Your task to perform on an android device: turn off javascript in the chrome app Image 0: 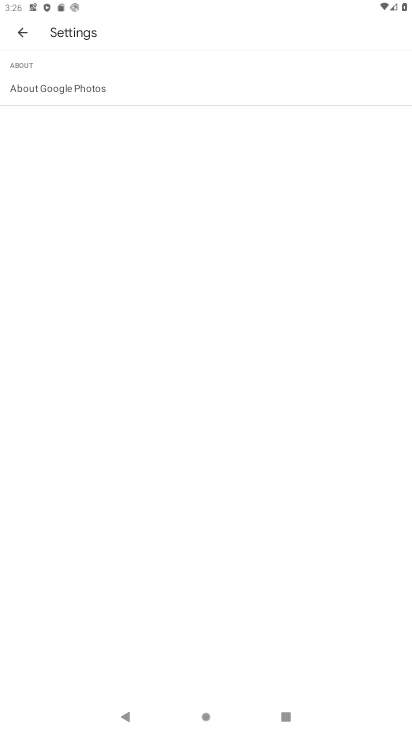
Step 0: press home button
Your task to perform on an android device: turn off javascript in the chrome app Image 1: 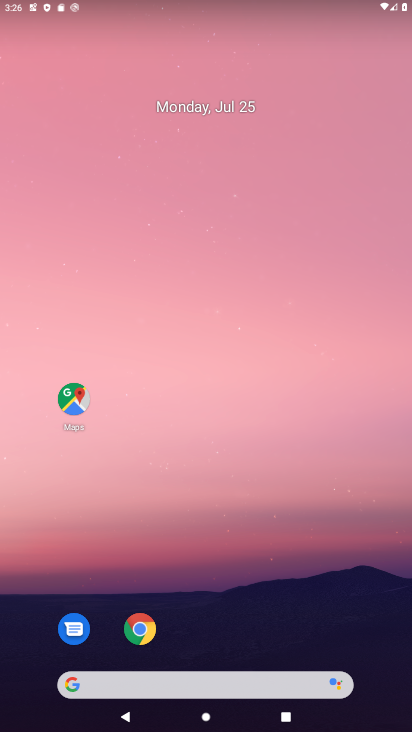
Step 1: drag from (296, 692) to (347, 83)
Your task to perform on an android device: turn off javascript in the chrome app Image 2: 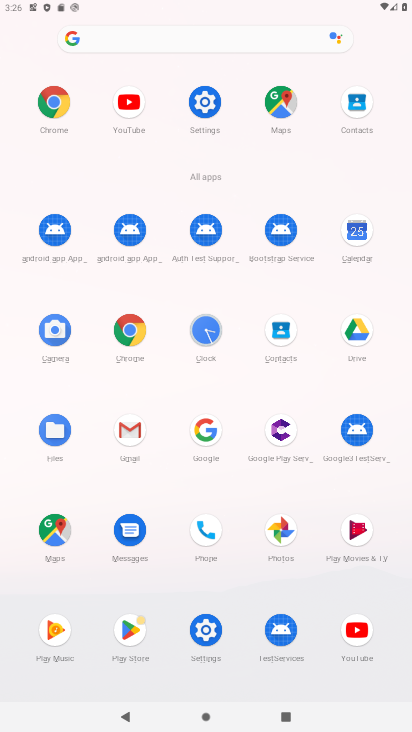
Step 2: click (132, 320)
Your task to perform on an android device: turn off javascript in the chrome app Image 3: 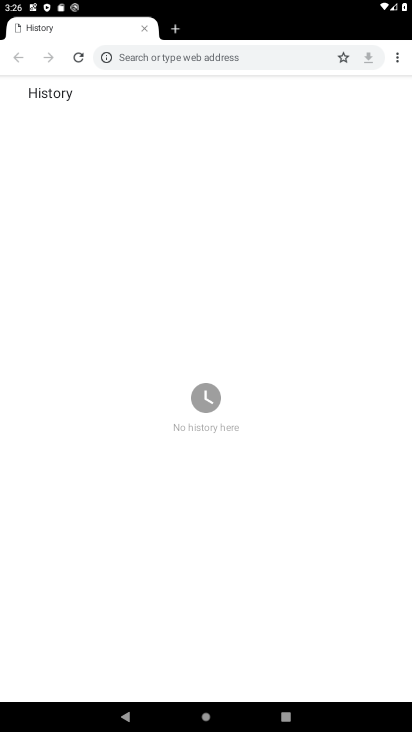
Step 3: drag from (387, 90) to (373, 233)
Your task to perform on an android device: turn off javascript in the chrome app Image 4: 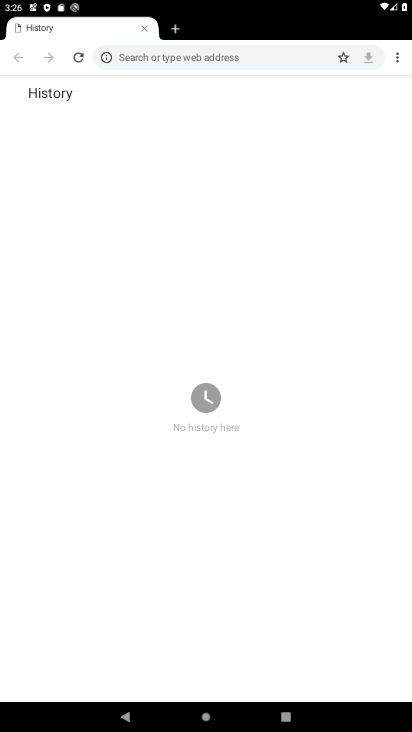
Step 4: drag from (396, 57) to (285, 272)
Your task to perform on an android device: turn off javascript in the chrome app Image 5: 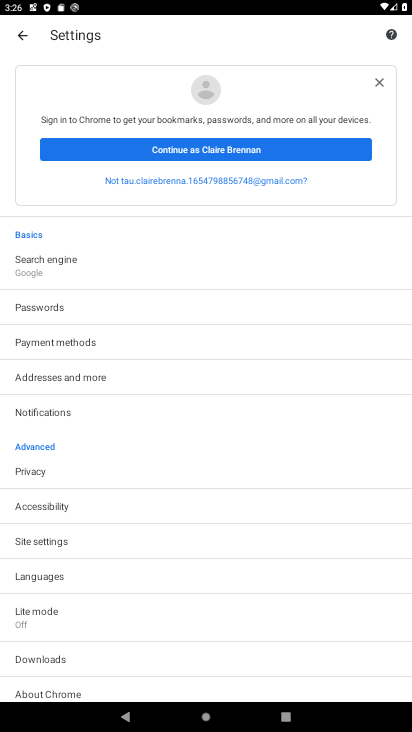
Step 5: click (68, 549)
Your task to perform on an android device: turn off javascript in the chrome app Image 6: 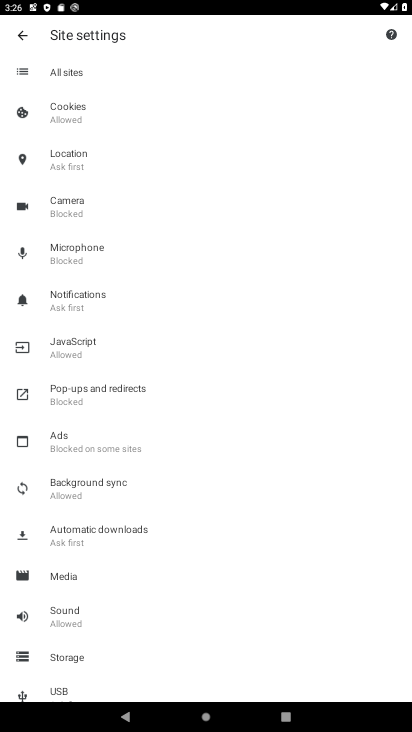
Step 6: click (107, 340)
Your task to perform on an android device: turn off javascript in the chrome app Image 7: 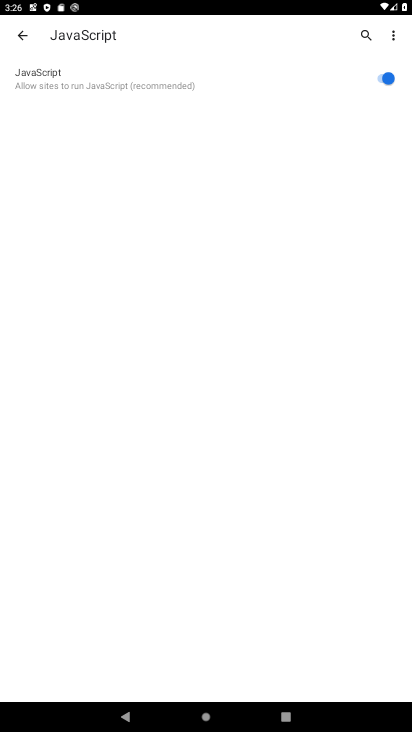
Step 7: click (383, 79)
Your task to perform on an android device: turn off javascript in the chrome app Image 8: 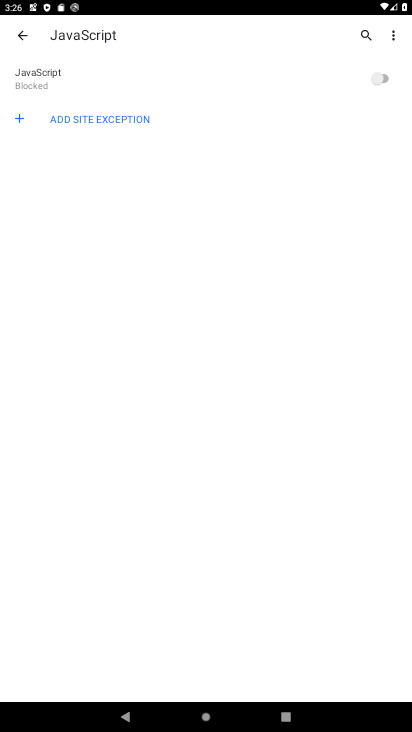
Step 8: task complete